Your task to perform on an android device: Clear the shopping cart on amazon. Image 0: 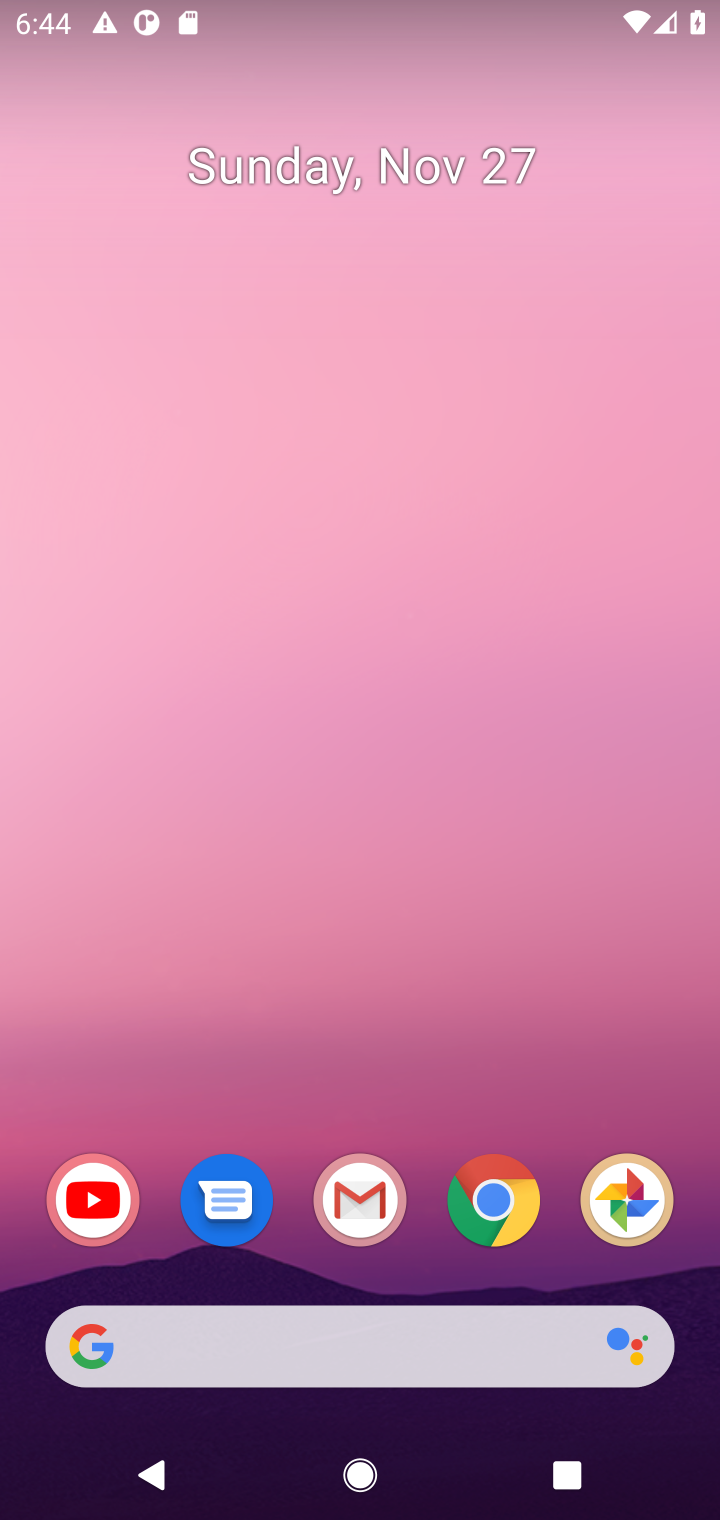
Step 0: click (496, 1203)
Your task to perform on an android device: Clear the shopping cart on amazon. Image 1: 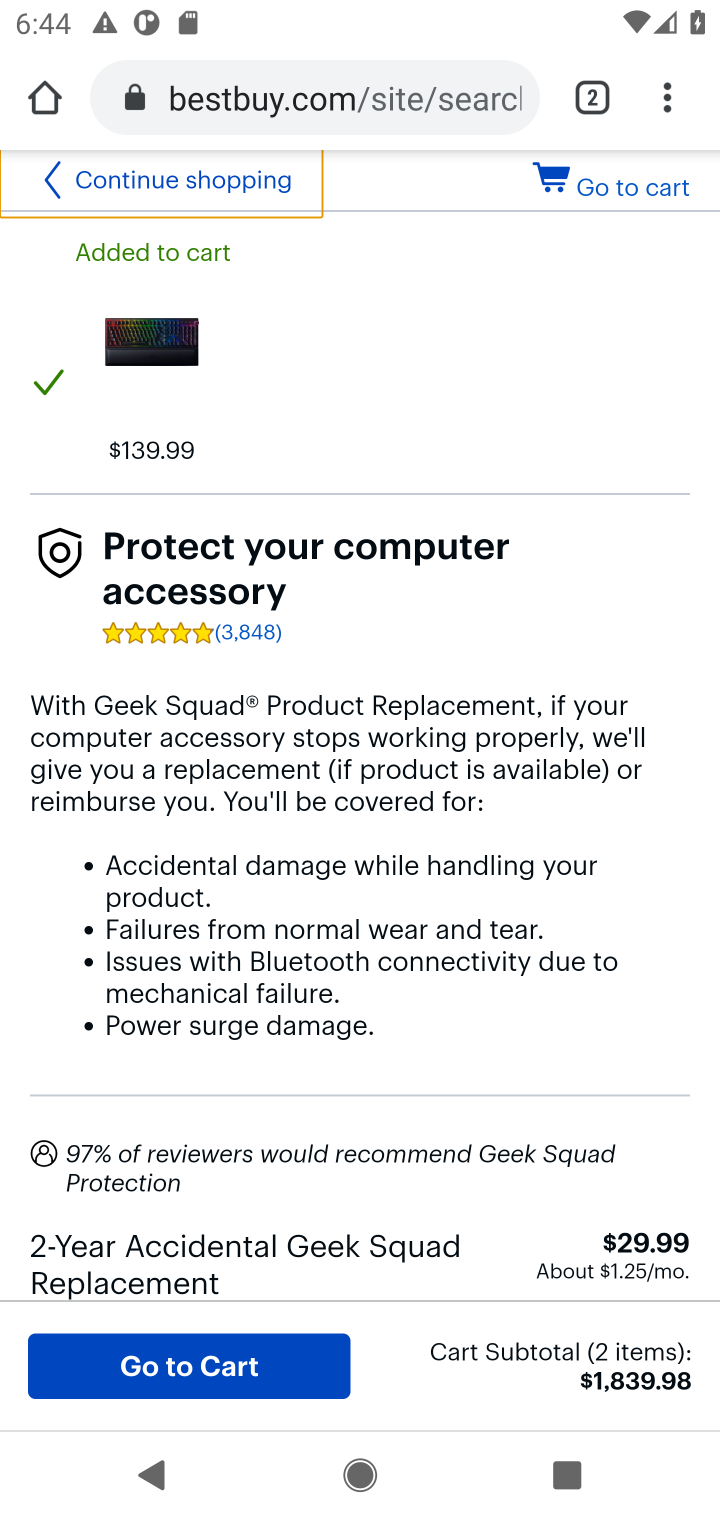
Step 1: click (278, 106)
Your task to perform on an android device: Clear the shopping cart on amazon. Image 2: 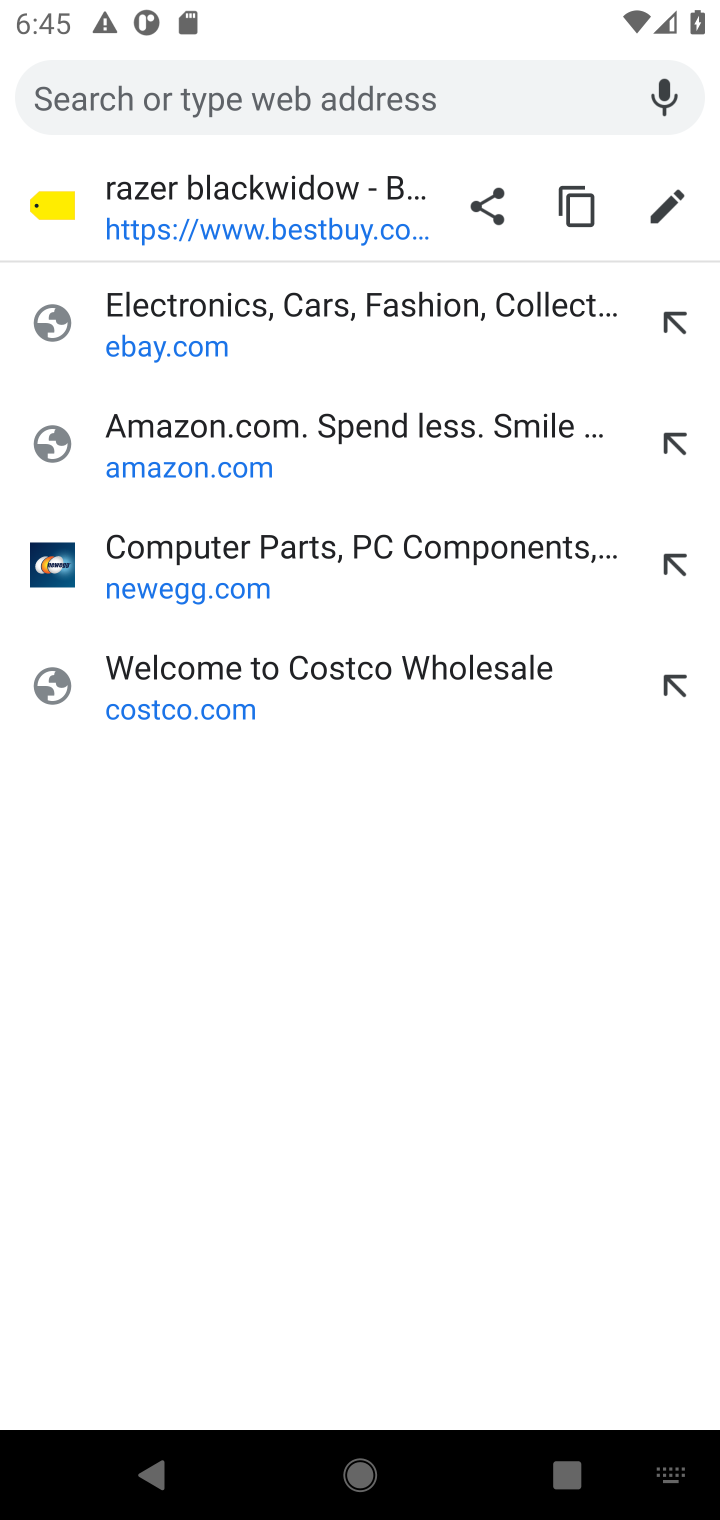
Step 2: click (155, 473)
Your task to perform on an android device: Clear the shopping cart on amazon. Image 3: 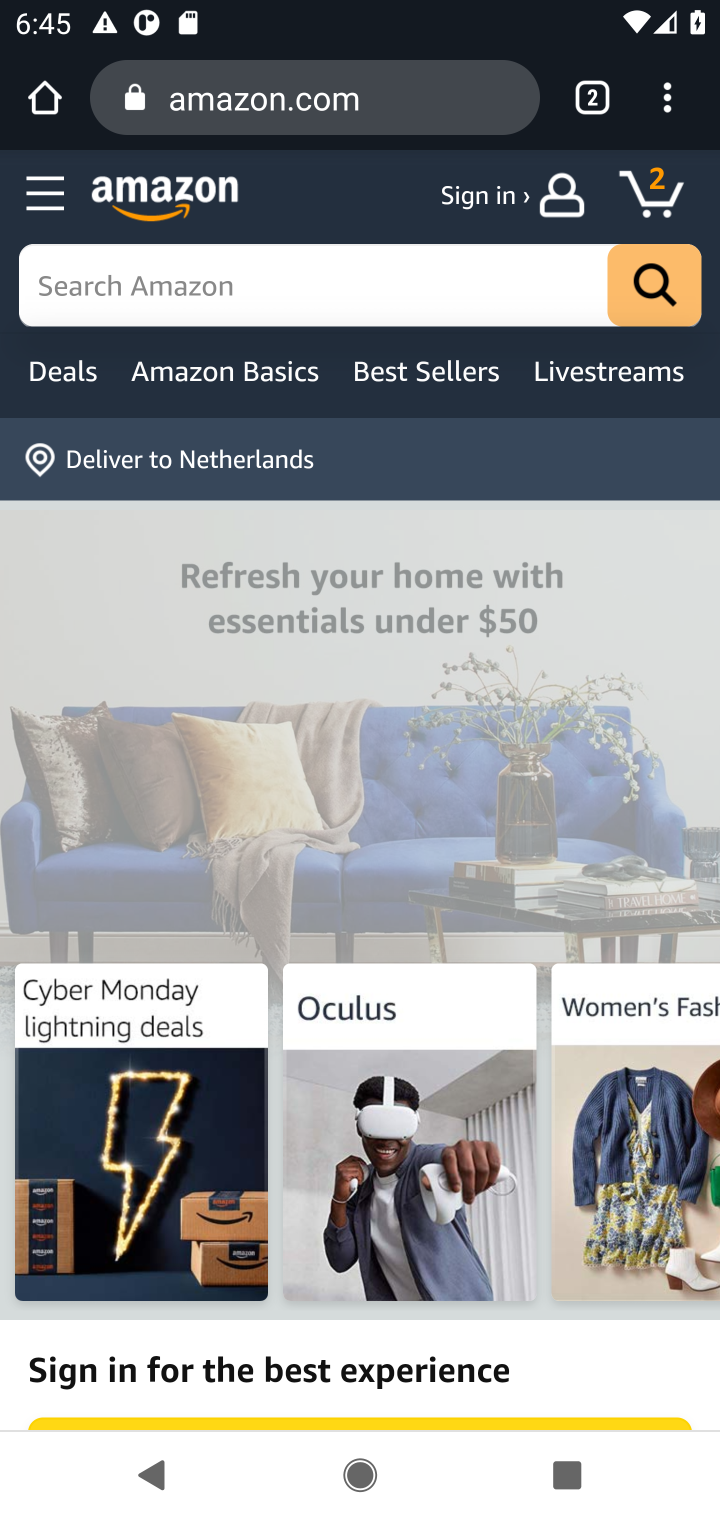
Step 3: click (669, 207)
Your task to perform on an android device: Clear the shopping cart on amazon. Image 4: 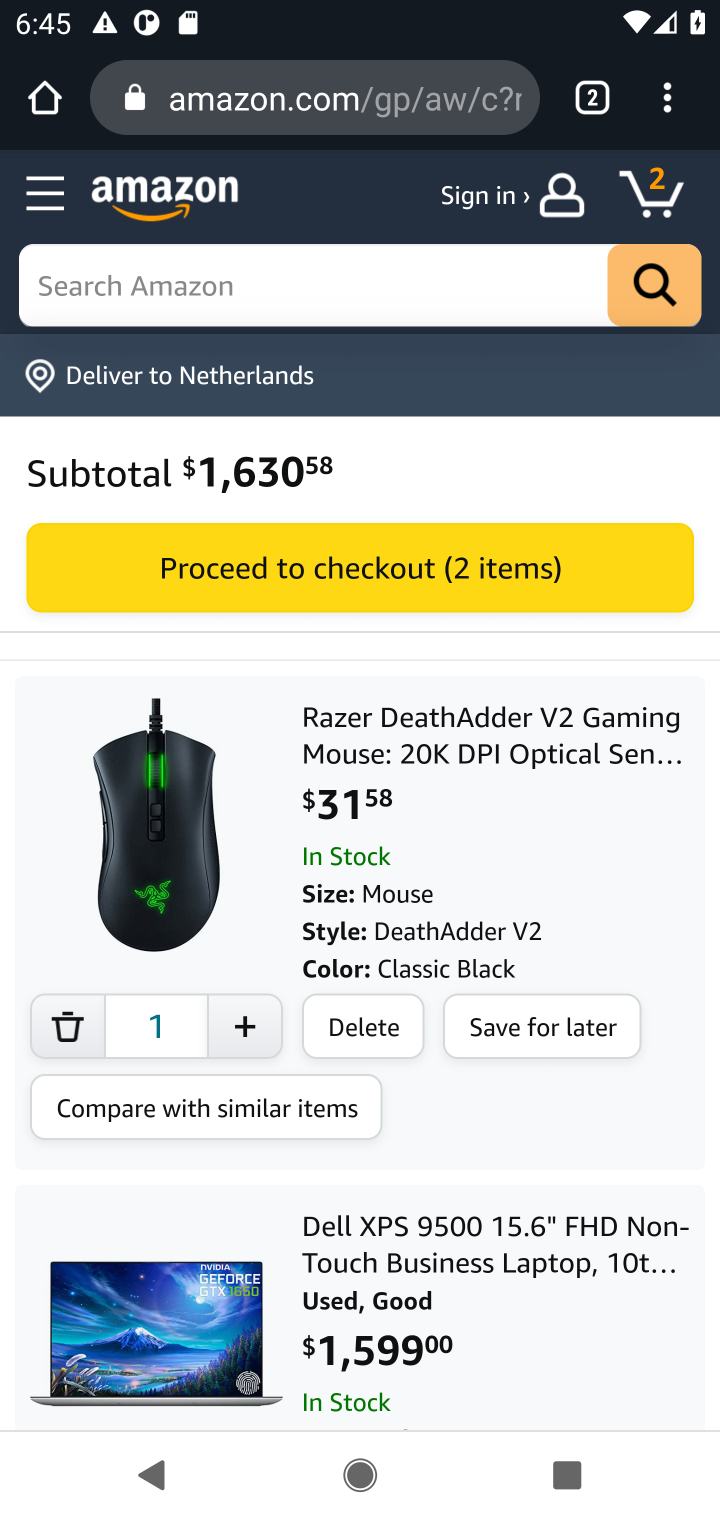
Step 4: click (369, 1021)
Your task to perform on an android device: Clear the shopping cart on amazon. Image 5: 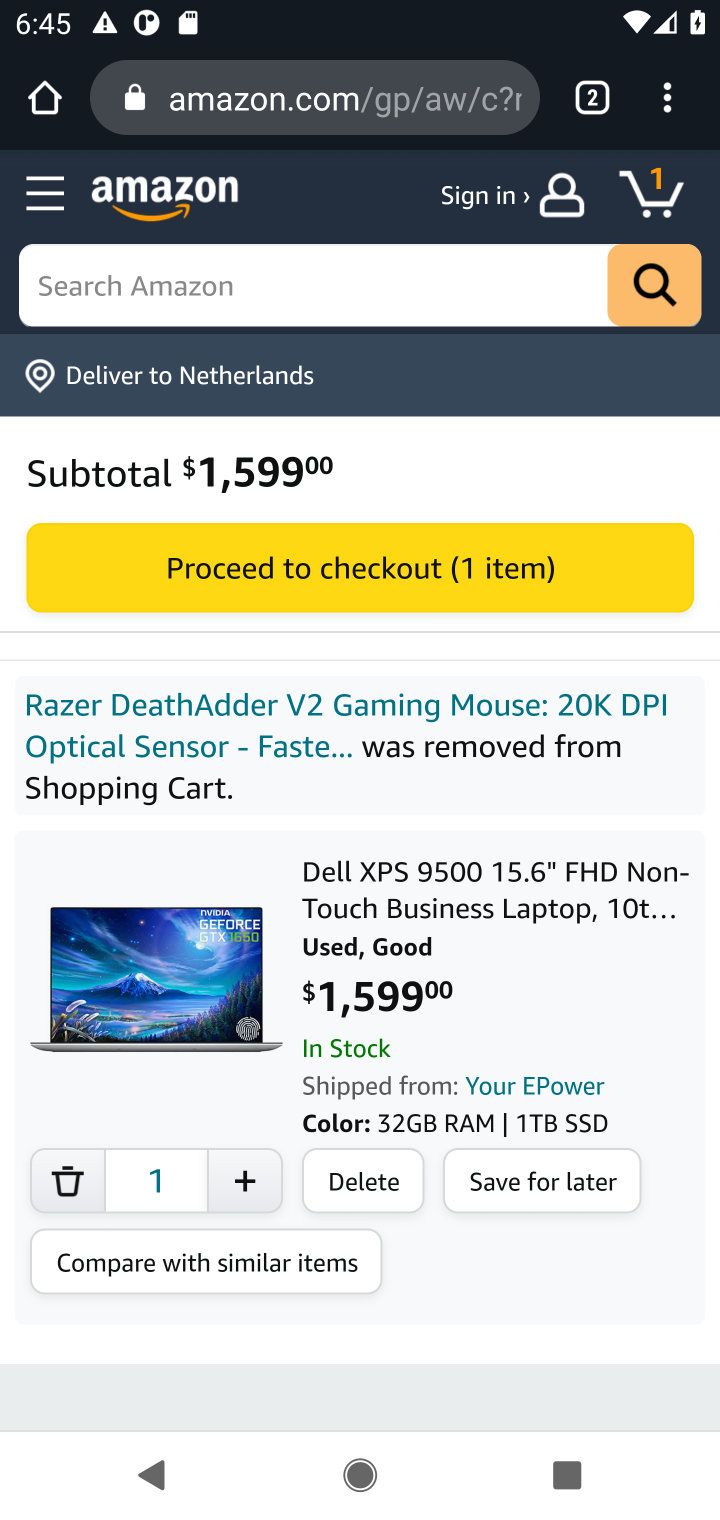
Step 5: click (359, 1186)
Your task to perform on an android device: Clear the shopping cart on amazon. Image 6: 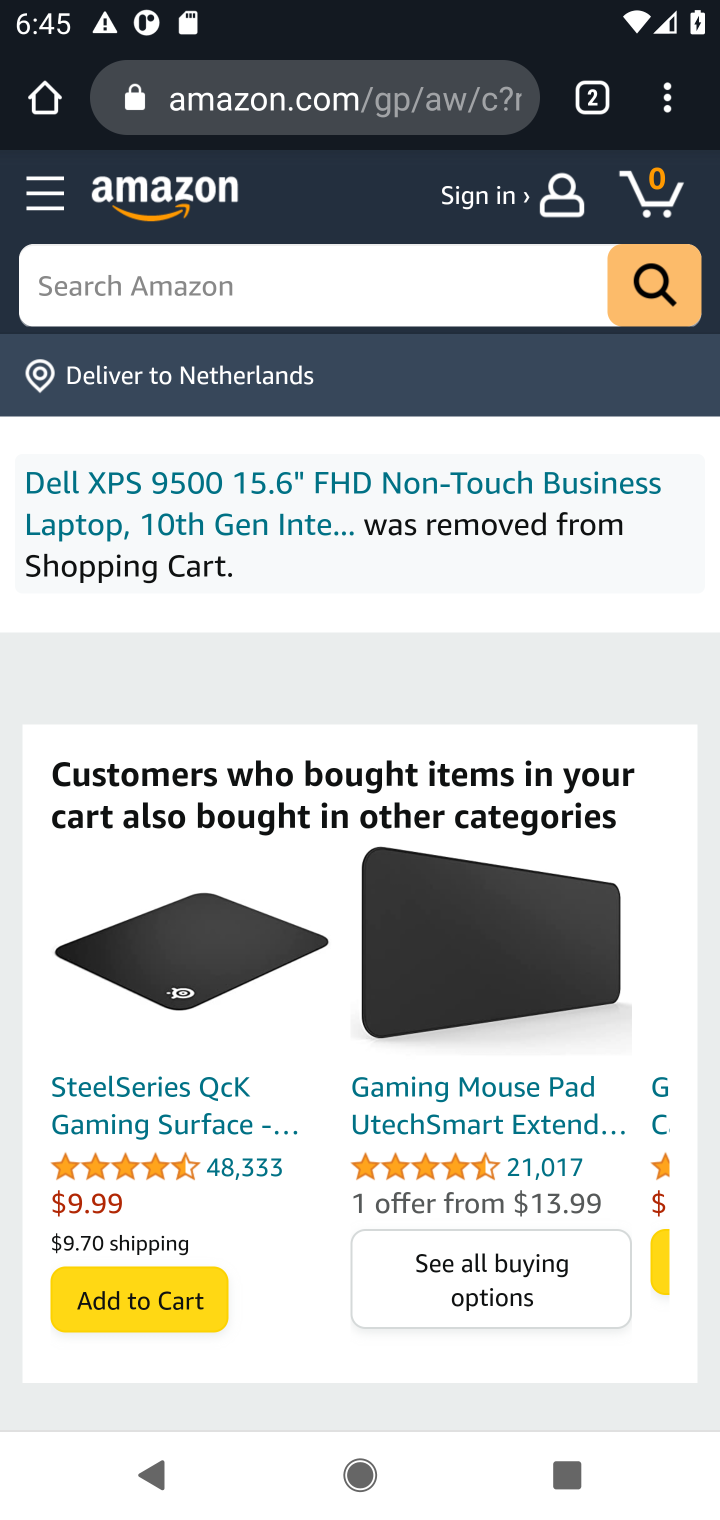
Step 6: task complete